Your task to perform on an android device: refresh tabs in the chrome app Image 0: 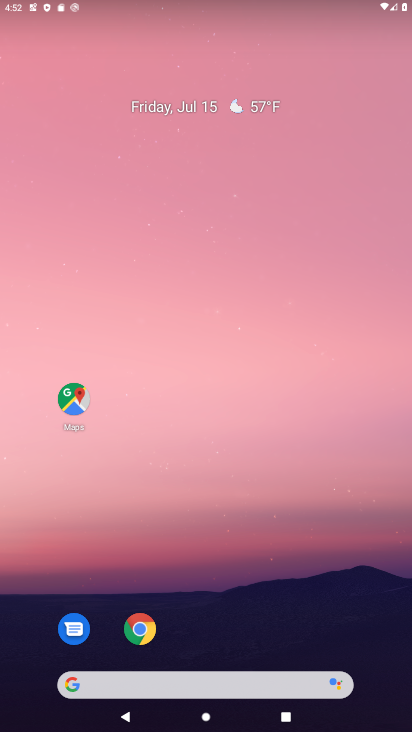
Step 0: press home button
Your task to perform on an android device: refresh tabs in the chrome app Image 1: 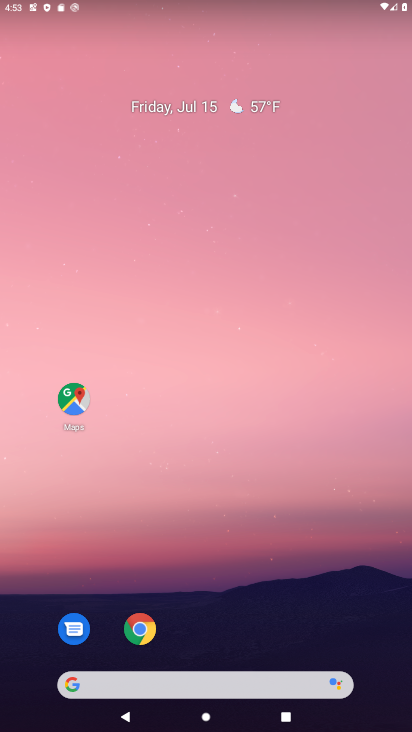
Step 1: click (148, 621)
Your task to perform on an android device: refresh tabs in the chrome app Image 2: 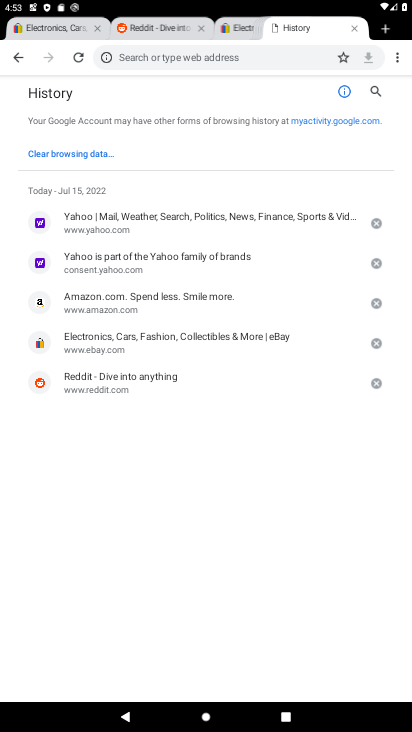
Step 2: click (394, 53)
Your task to perform on an android device: refresh tabs in the chrome app Image 3: 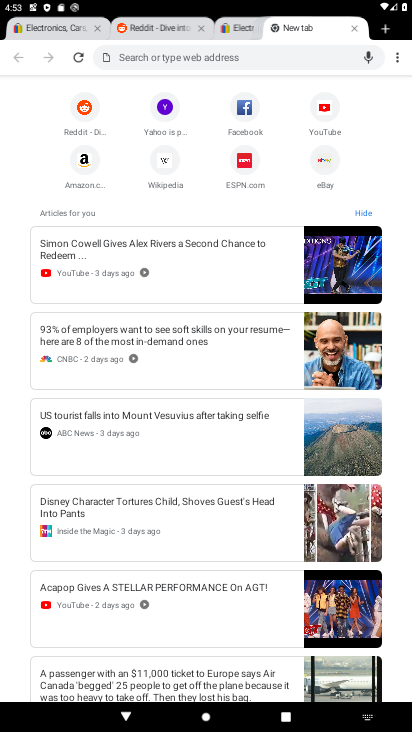
Step 3: click (75, 53)
Your task to perform on an android device: refresh tabs in the chrome app Image 4: 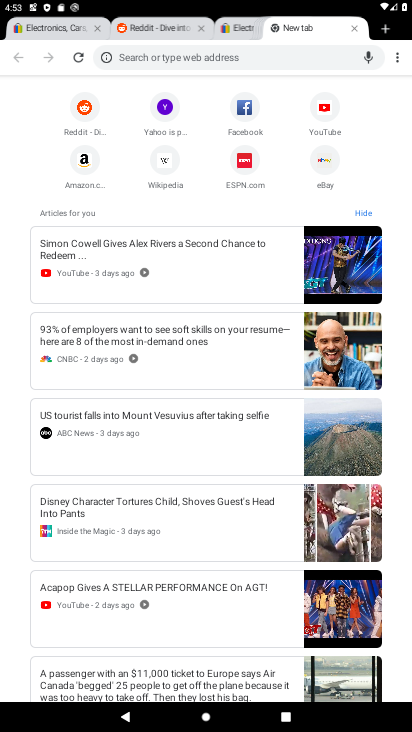
Step 4: click (78, 57)
Your task to perform on an android device: refresh tabs in the chrome app Image 5: 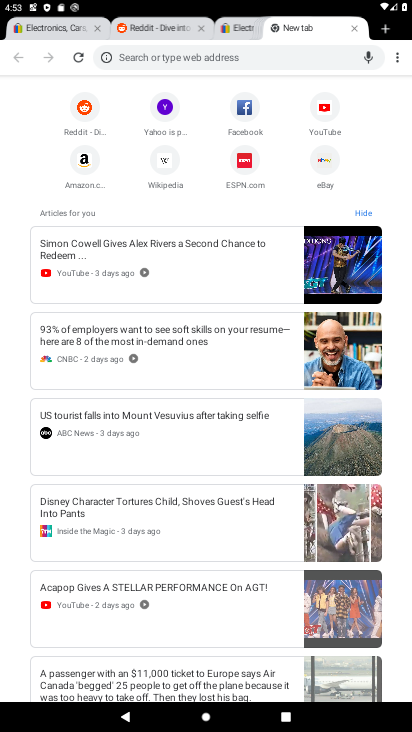
Step 5: task complete